Your task to perform on an android device: Open Youtube and go to the subscriptions tab Image 0: 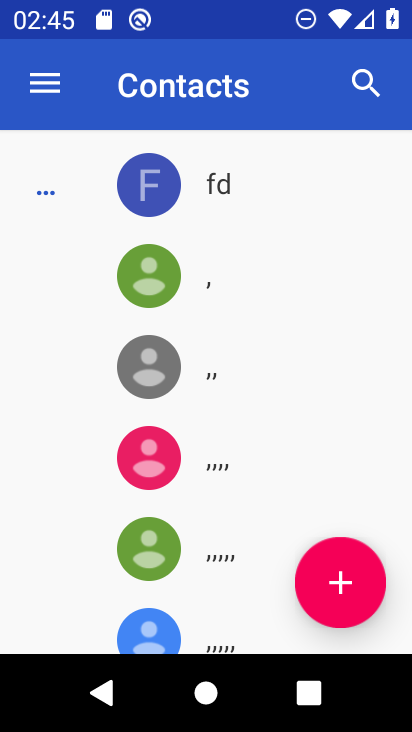
Step 0: press home button
Your task to perform on an android device: Open Youtube and go to the subscriptions tab Image 1: 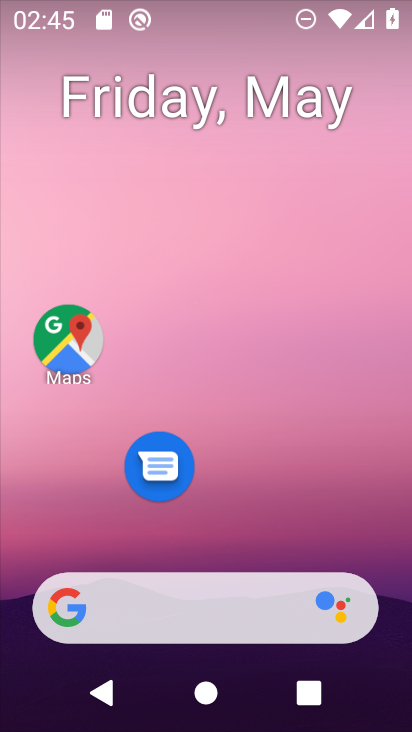
Step 1: drag from (345, 536) to (228, 17)
Your task to perform on an android device: Open Youtube and go to the subscriptions tab Image 2: 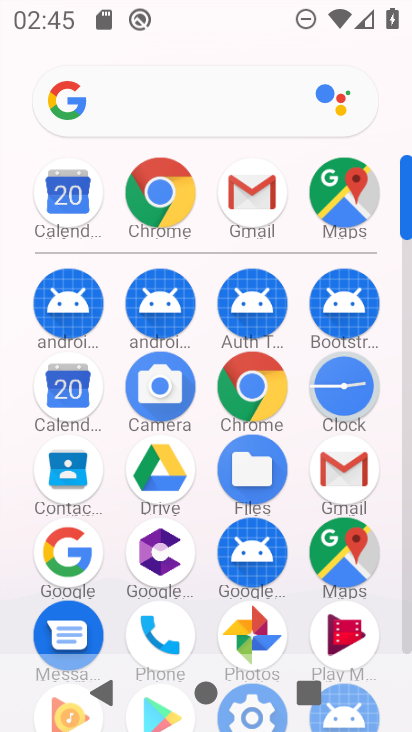
Step 2: click (409, 613)
Your task to perform on an android device: Open Youtube and go to the subscriptions tab Image 3: 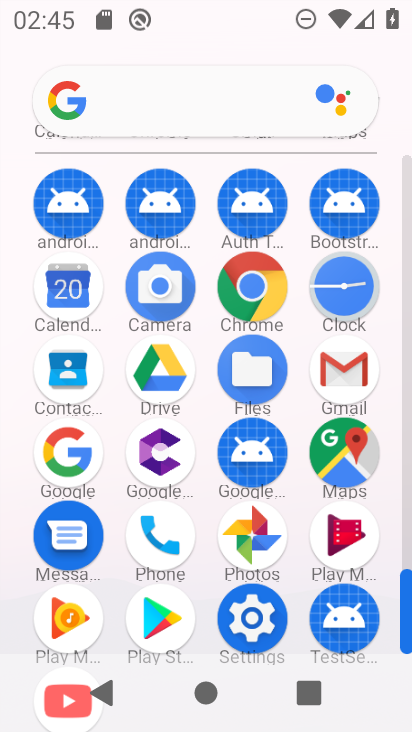
Step 3: click (406, 644)
Your task to perform on an android device: Open Youtube and go to the subscriptions tab Image 4: 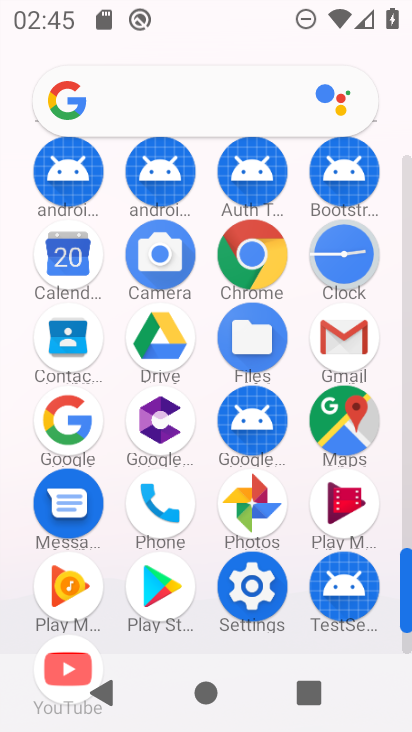
Step 4: click (407, 642)
Your task to perform on an android device: Open Youtube and go to the subscriptions tab Image 5: 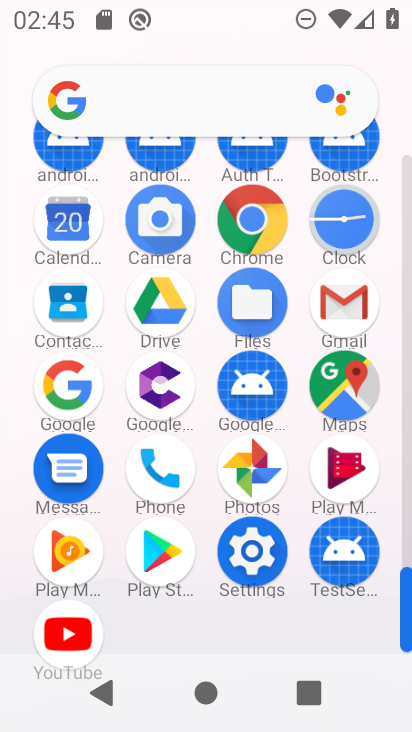
Step 5: click (52, 636)
Your task to perform on an android device: Open Youtube and go to the subscriptions tab Image 6: 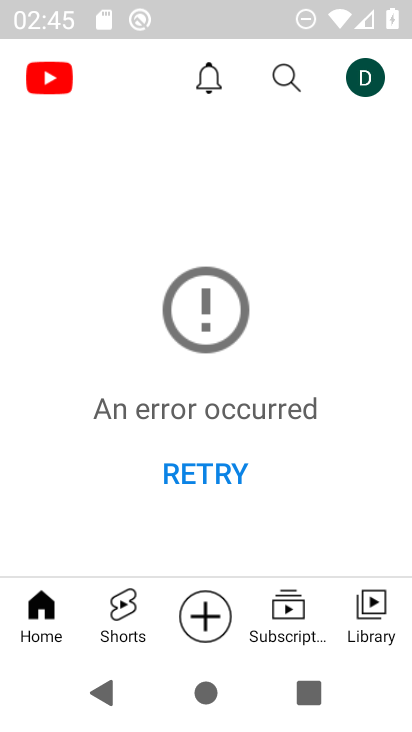
Step 6: click (269, 631)
Your task to perform on an android device: Open Youtube and go to the subscriptions tab Image 7: 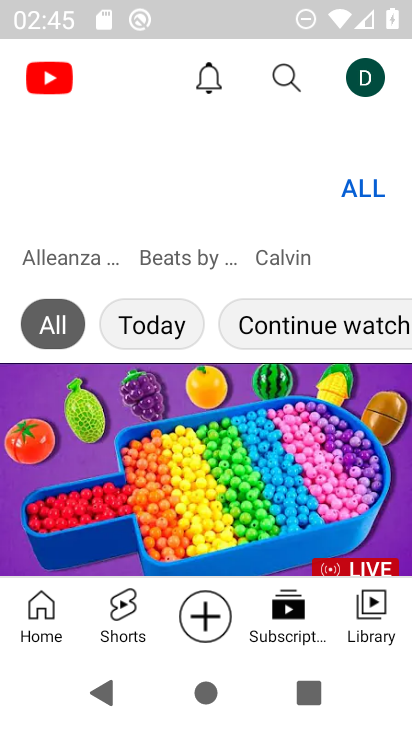
Step 7: task complete